Your task to perform on an android device: Open Amazon Image 0: 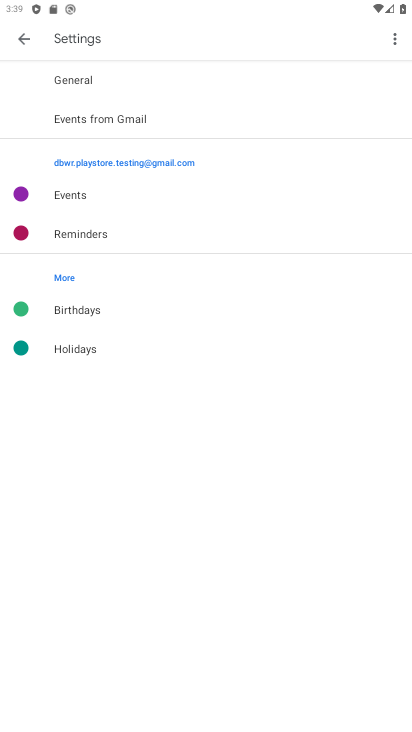
Step 0: press back button
Your task to perform on an android device: Open Amazon Image 1: 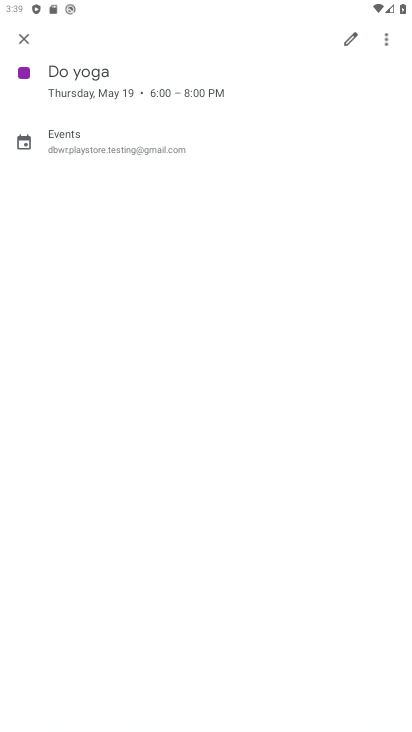
Step 1: press back button
Your task to perform on an android device: Open Amazon Image 2: 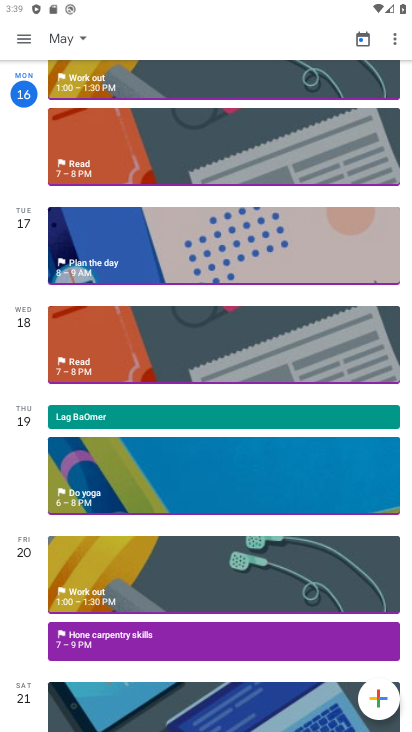
Step 2: press back button
Your task to perform on an android device: Open Amazon Image 3: 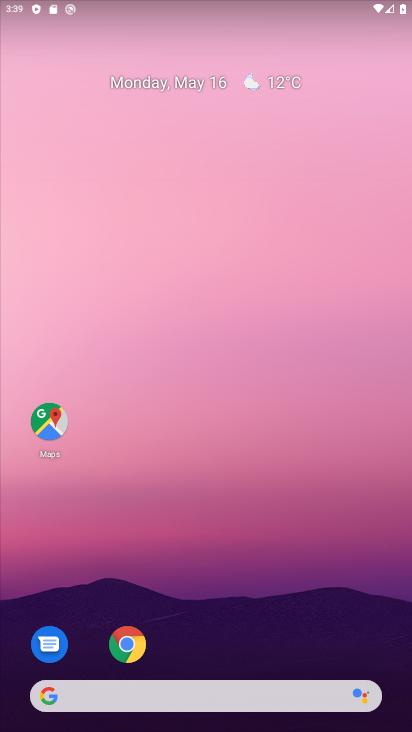
Step 3: click (132, 647)
Your task to perform on an android device: Open Amazon Image 4: 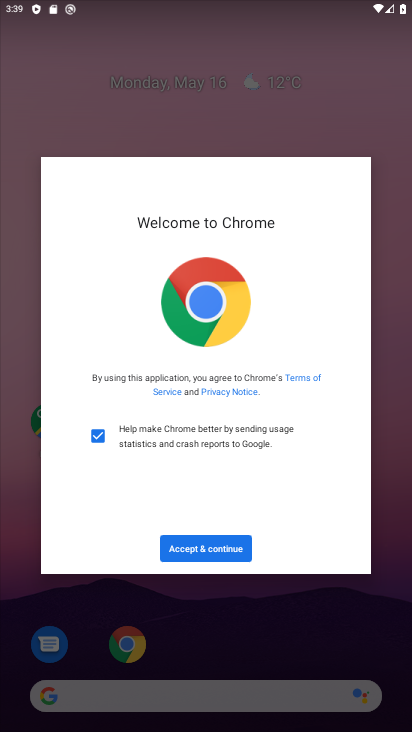
Step 4: click (184, 531)
Your task to perform on an android device: Open Amazon Image 5: 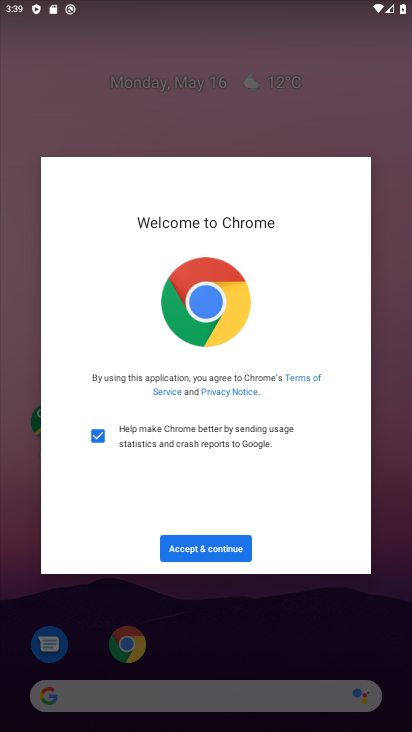
Step 5: click (187, 550)
Your task to perform on an android device: Open Amazon Image 6: 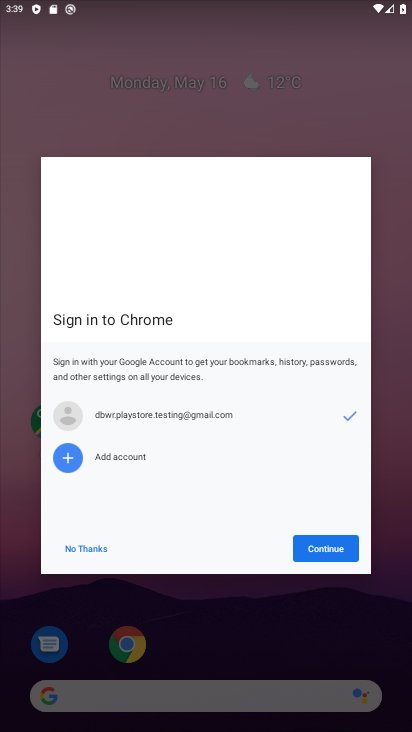
Step 6: click (344, 550)
Your task to perform on an android device: Open Amazon Image 7: 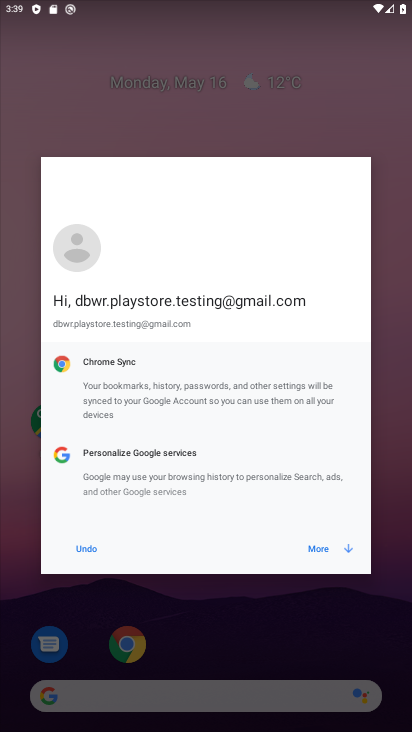
Step 7: click (330, 546)
Your task to perform on an android device: Open Amazon Image 8: 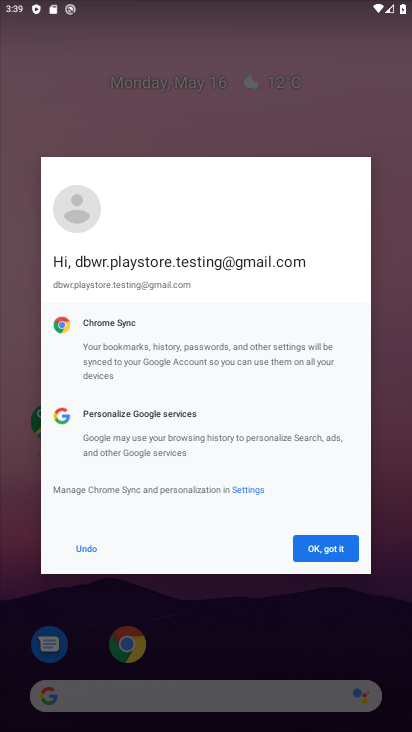
Step 8: click (326, 546)
Your task to perform on an android device: Open Amazon Image 9: 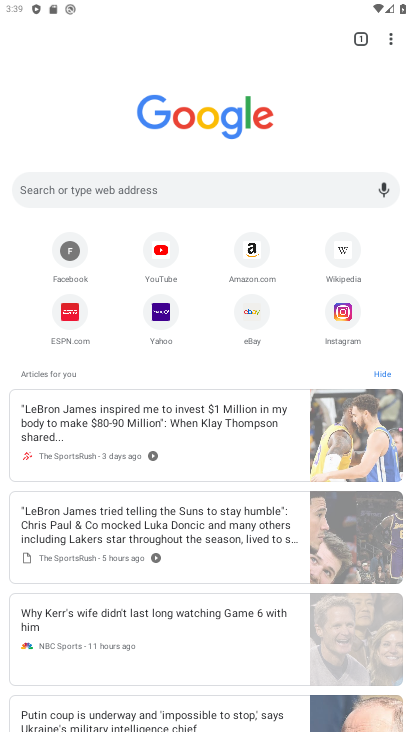
Step 9: click (243, 260)
Your task to perform on an android device: Open Amazon Image 10: 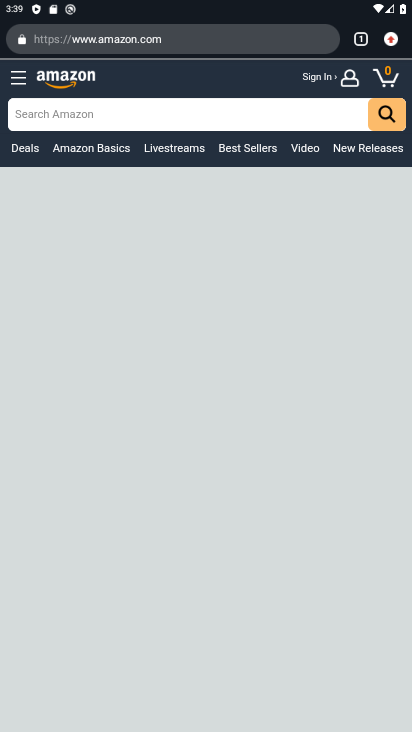
Step 10: task complete